Your task to perform on an android device: What's the weather going to be this weekend? Image 0: 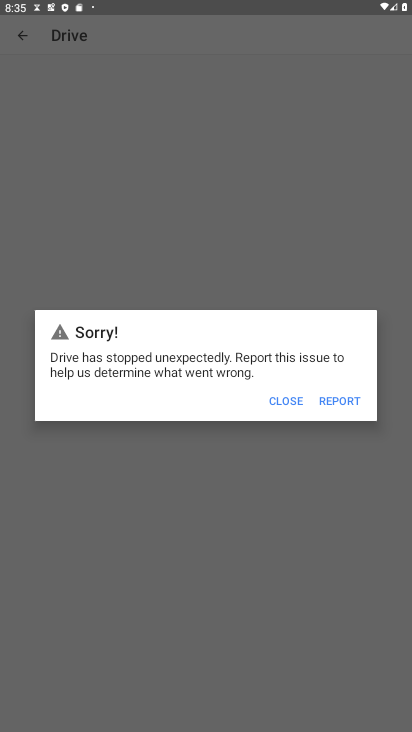
Step 0: press home button
Your task to perform on an android device: What's the weather going to be this weekend? Image 1: 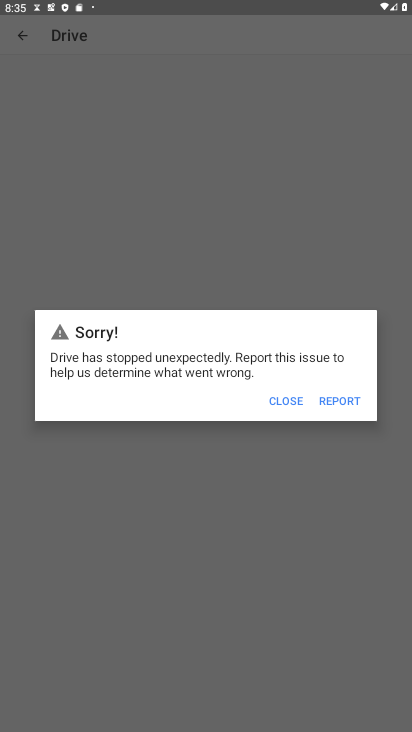
Step 1: drag from (215, 641) to (272, 62)
Your task to perform on an android device: What's the weather going to be this weekend? Image 2: 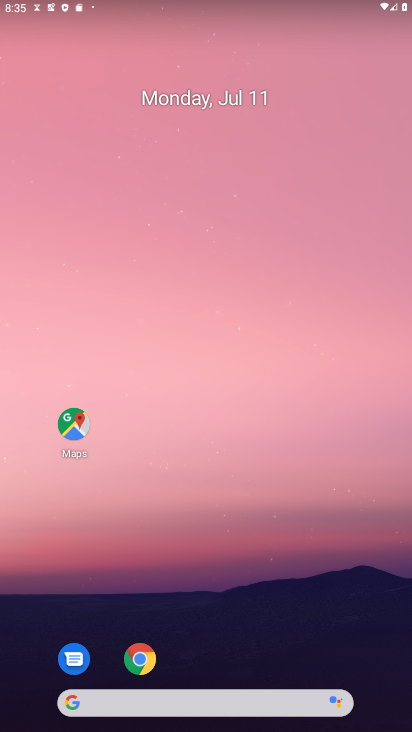
Step 2: drag from (218, 637) to (180, 168)
Your task to perform on an android device: What's the weather going to be this weekend? Image 3: 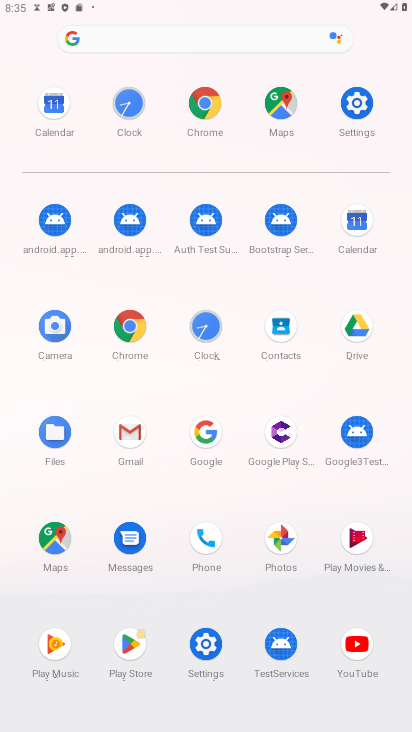
Step 3: drag from (168, 671) to (180, 205)
Your task to perform on an android device: What's the weather going to be this weekend? Image 4: 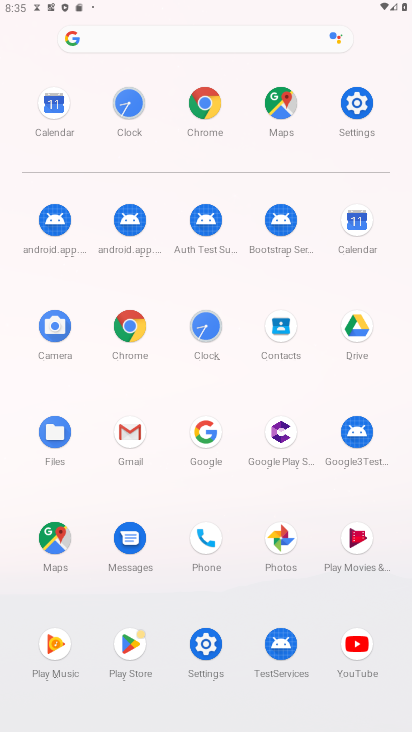
Step 4: click (133, 37)
Your task to perform on an android device: What's the weather going to be this weekend? Image 5: 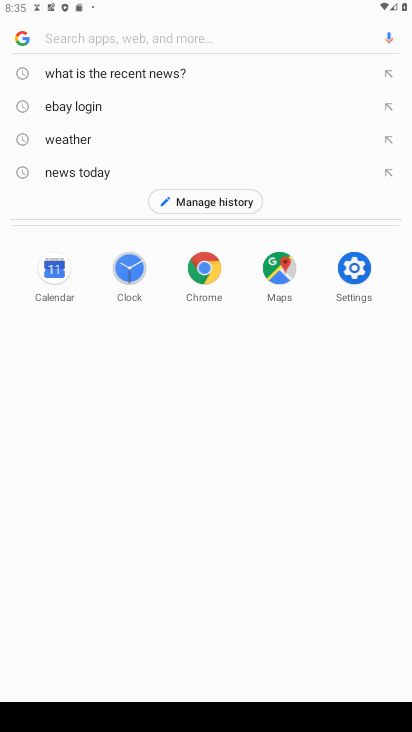
Step 5: type "What's the weather going to be this weekend?"
Your task to perform on an android device: What's the weather going to be this weekend? Image 6: 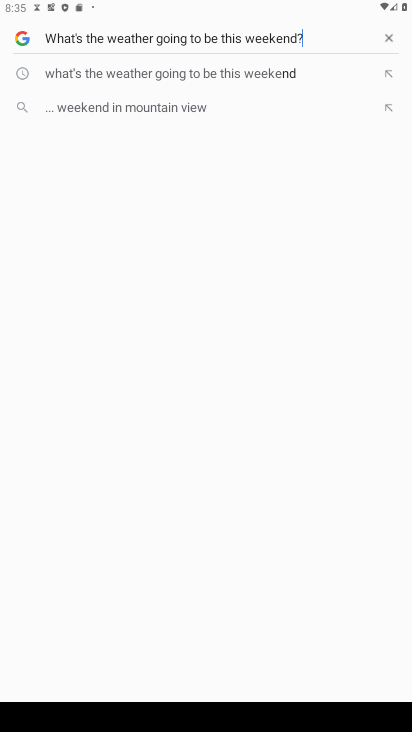
Step 6: type ""
Your task to perform on an android device: What's the weather going to be this weekend? Image 7: 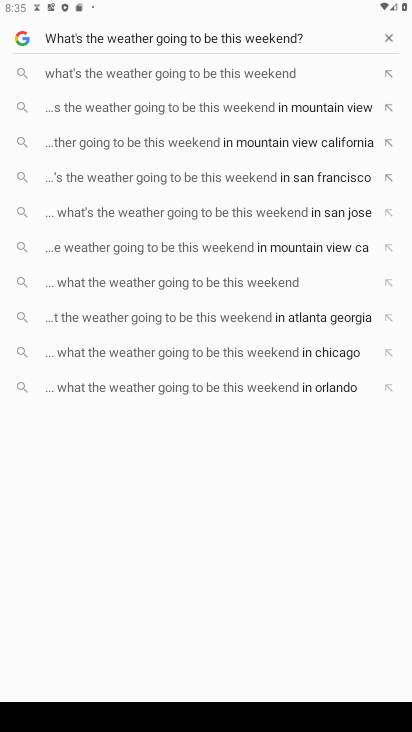
Step 7: click (160, 90)
Your task to perform on an android device: What's the weather going to be this weekend? Image 8: 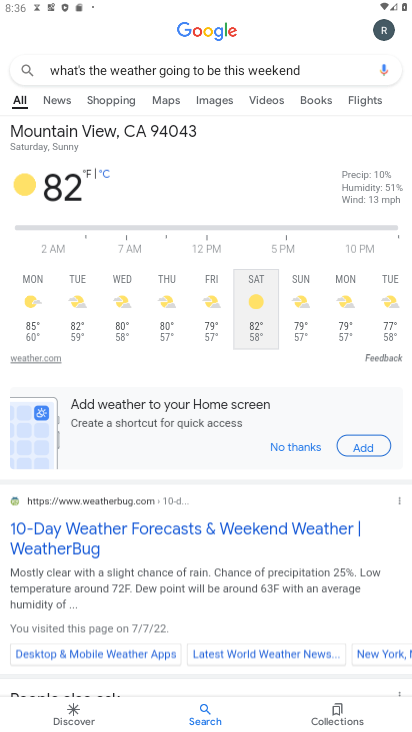
Step 8: task complete